Your task to perform on an android device: Show the shopping cart on bestbuy.com. Add logitech g502 to the cart on bestbuy.com Image 0: 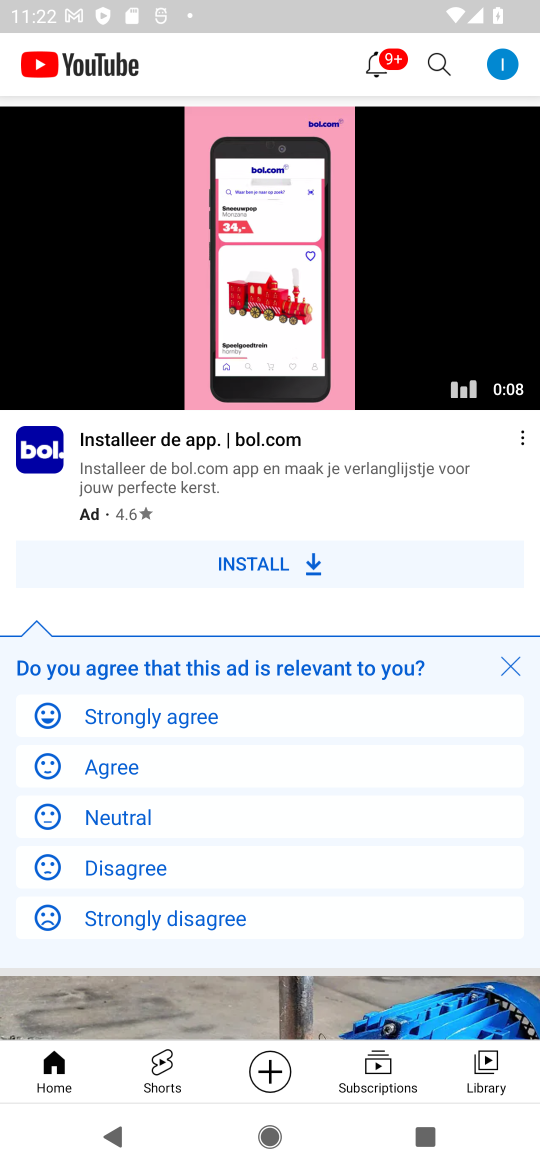
Step 0: press home button
Your task to perform on an android device: Show the shopping cart on bestbuy.com. Add logitech g502 to the cart on bestbuy.com Image 1: 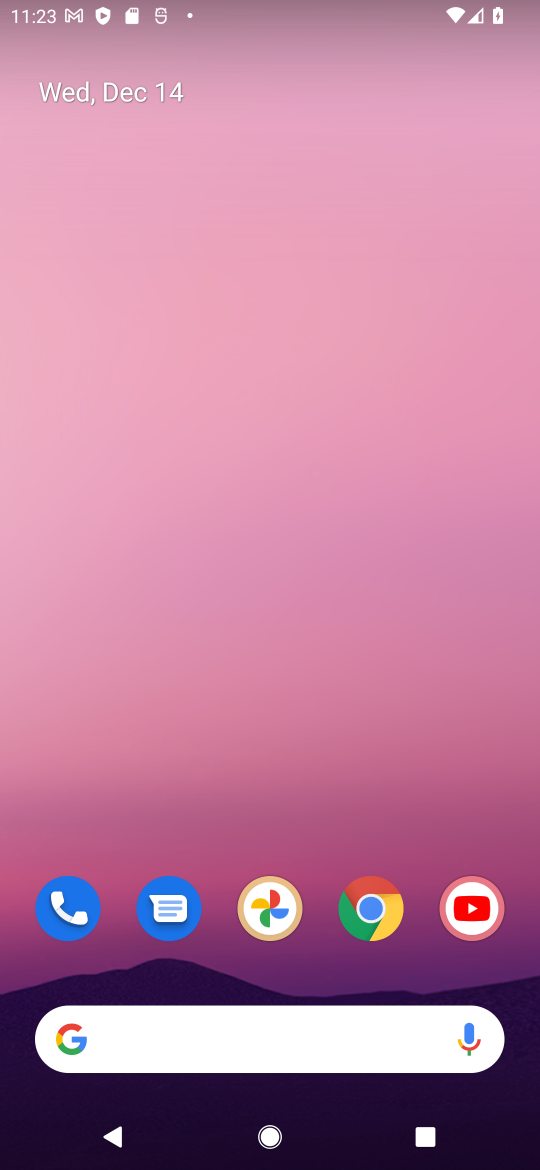
Step 1: click (364, 917)
Your task to perform on an android device: Show the shopping cart on bestbuy.com. Add logitech g502 to the cart on bestbuy.com Image 2: 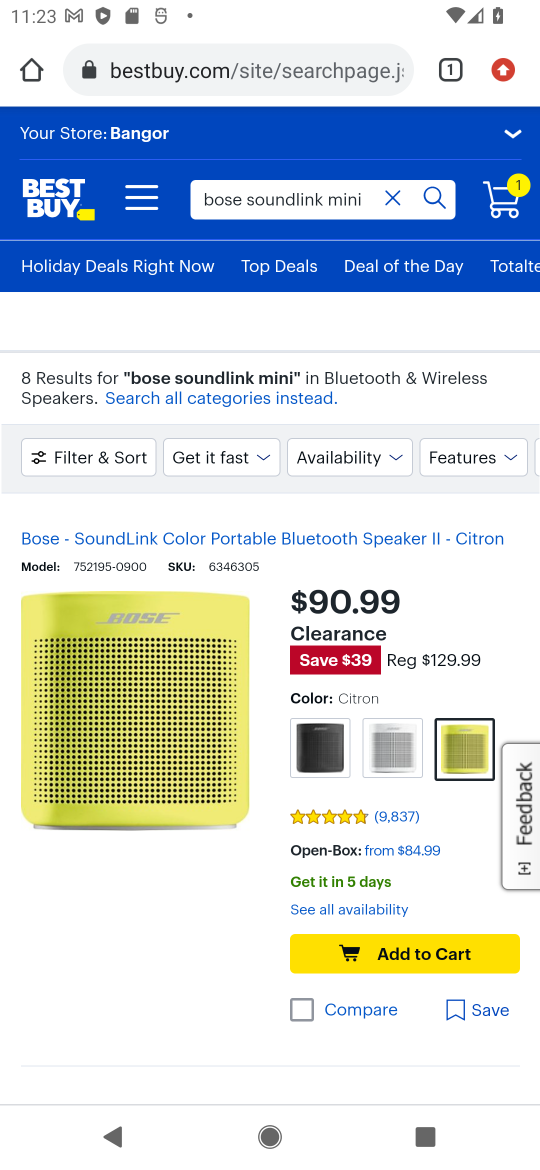
Step 2: click (501, 203)
Your task to perform on an android device: Show the shopping cart on bestbuy.com. Add logitech g502 to the cart on bestbuy.com Image 3: 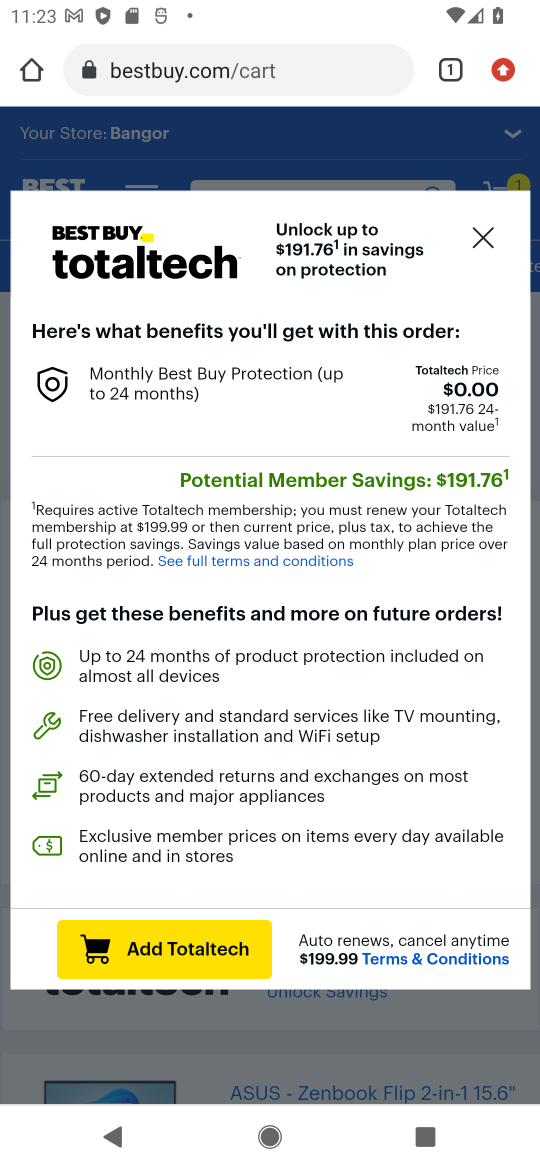
Step 3: click (490, 240)
Your task to perform on an android device: Show the shopping cart on bestbuy.com. Add logitech g502 to the cart on bestbuy.com Image 4: 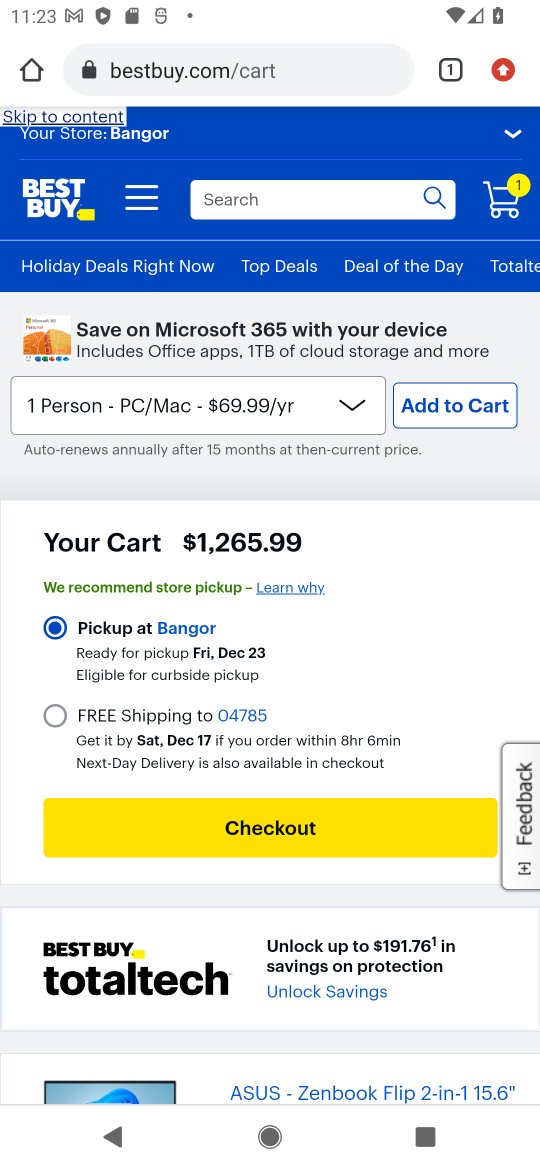
Step 4: click (241, 196)
Your task to perform on an android device: Show the shopping cart on bestbuy.com. Add logitech g502 to the cart on bestbuy.com Image 5: 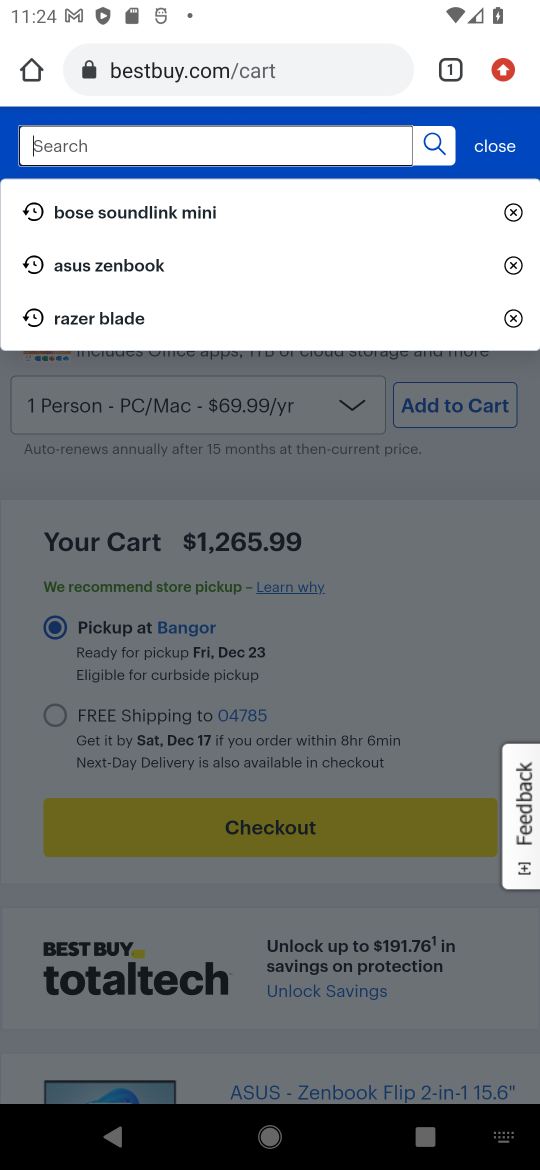
Step 5: type "logitech g502"
Your task to perform on an android device: Show the shopping cart on bestbuy.com. Add logitech g502 to the cart on bestbuy.com Image 6: 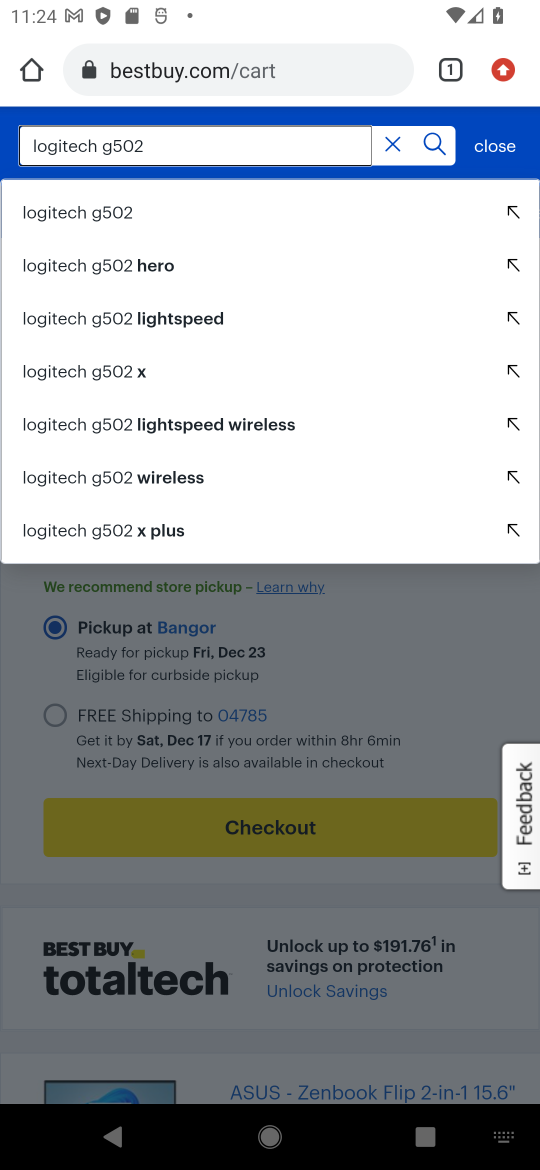
Step 6: click (116, 215)
Your task to perform on an android device: Show the shopping cart on bestbuy.com. Add logitech g502 to the cart on bestbuy.com Image 7: 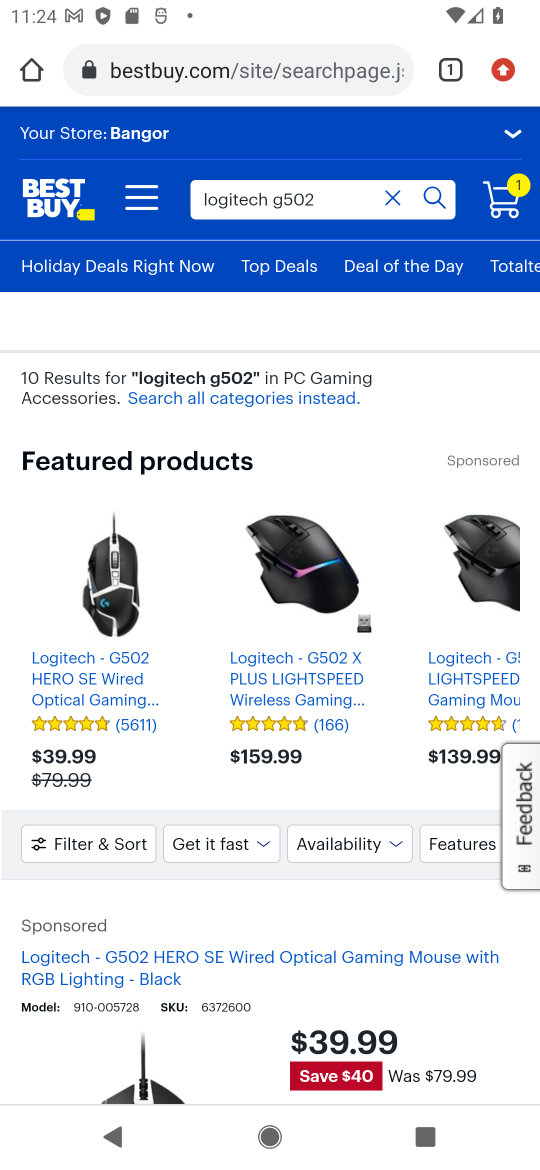
Step 7: drag from (229, 737) to (278, 341)
Your task to perform on an android device: Show the shopping cart on bestbuy.com. Add logitech g502 to the cart on bestbuy.com Image 8: 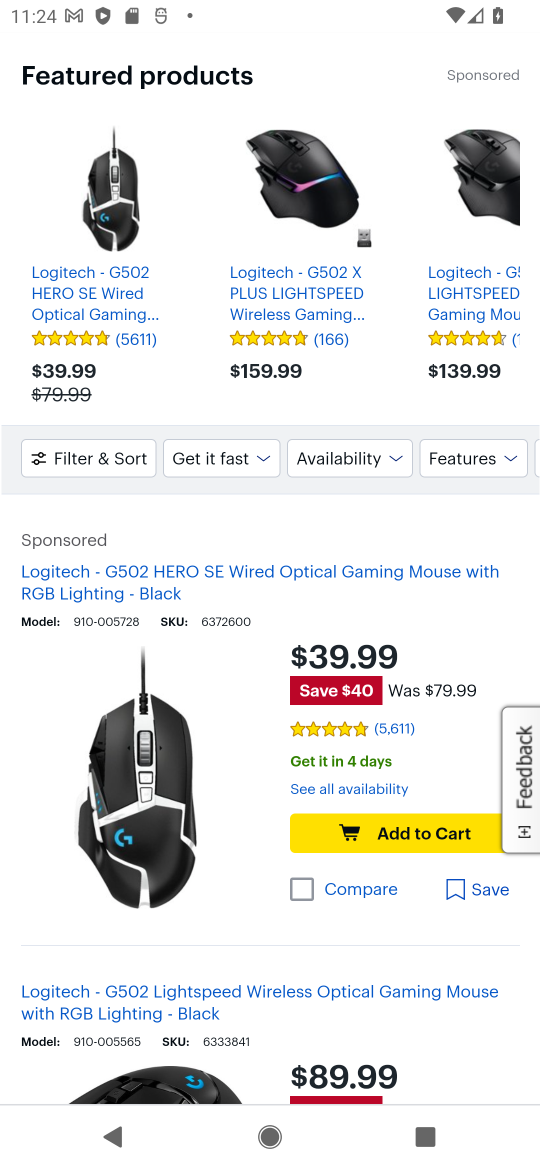
Step 8: click (422, 835)
Your task to perform on an android device: Show the shopping cart on bestbuy.com. Add logitech g502 to the cart on bestbuy.com Image 9: 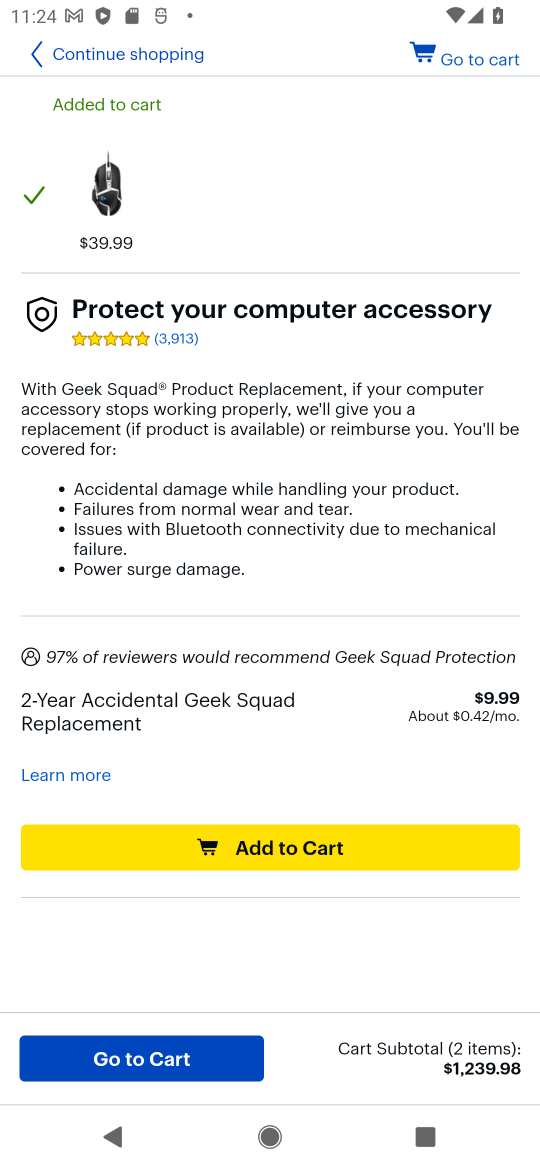
Step 9: task complete